Your task to perform on an android device: show emergency info Image 0: 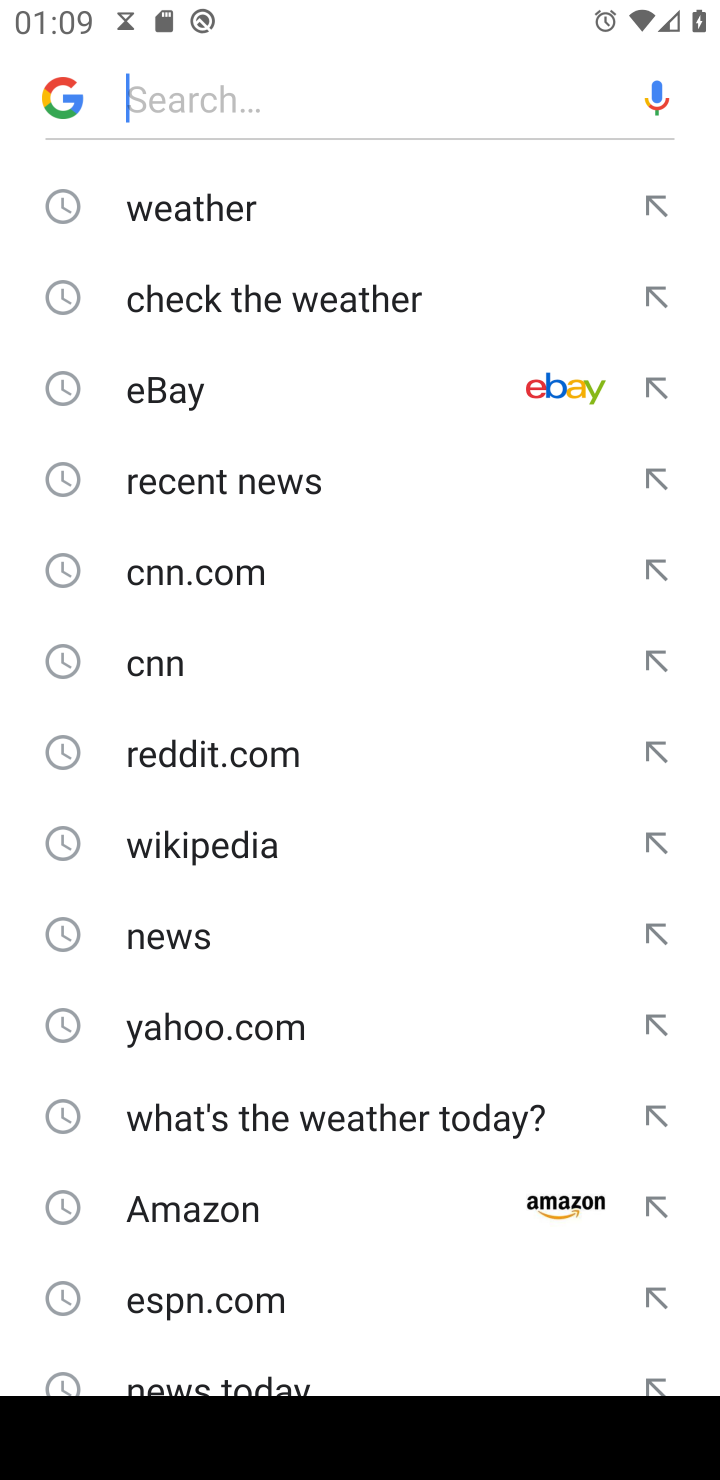
Step 0: press home button
Your task to perform on an android device: show emergency info Image 1: 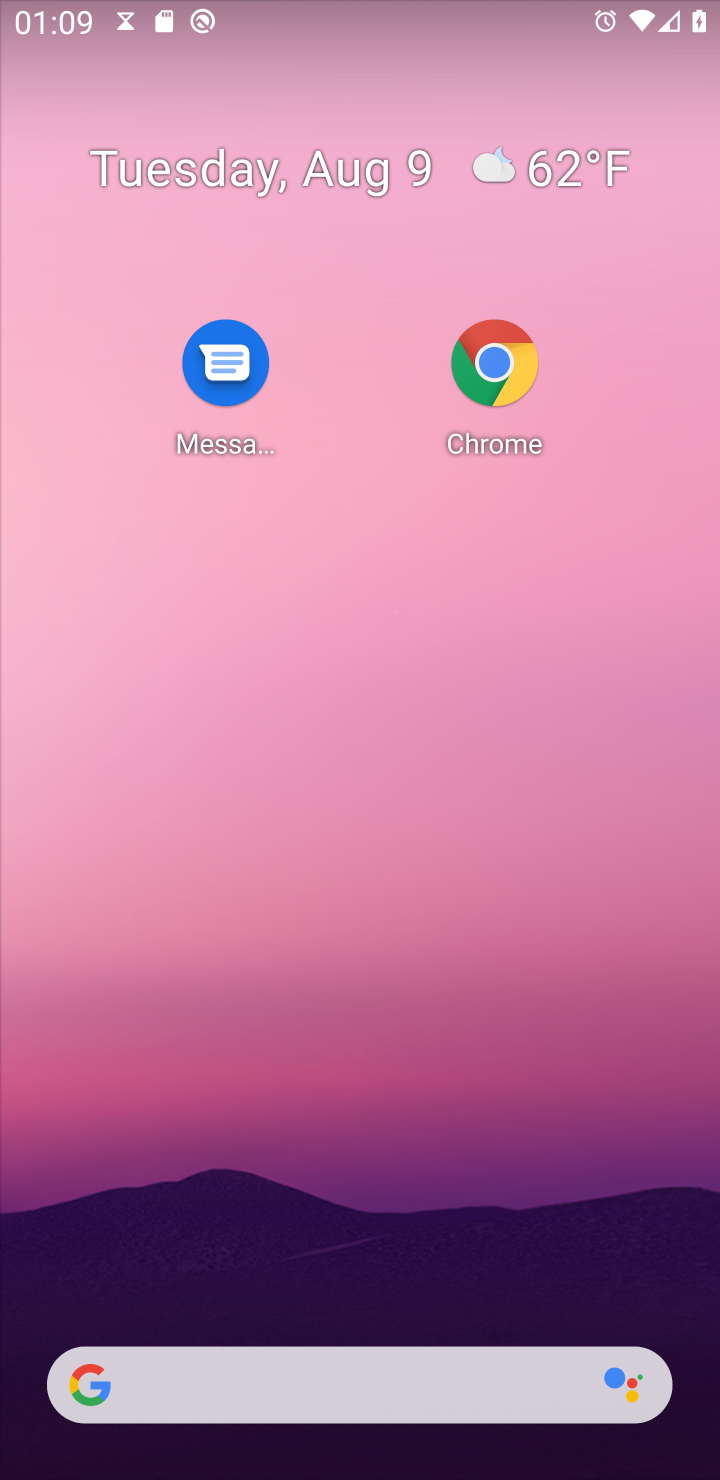
Step 1: drag from (368, 1299) to (351, 443)
Your task to perform on an android device: show emergency info Image 2: 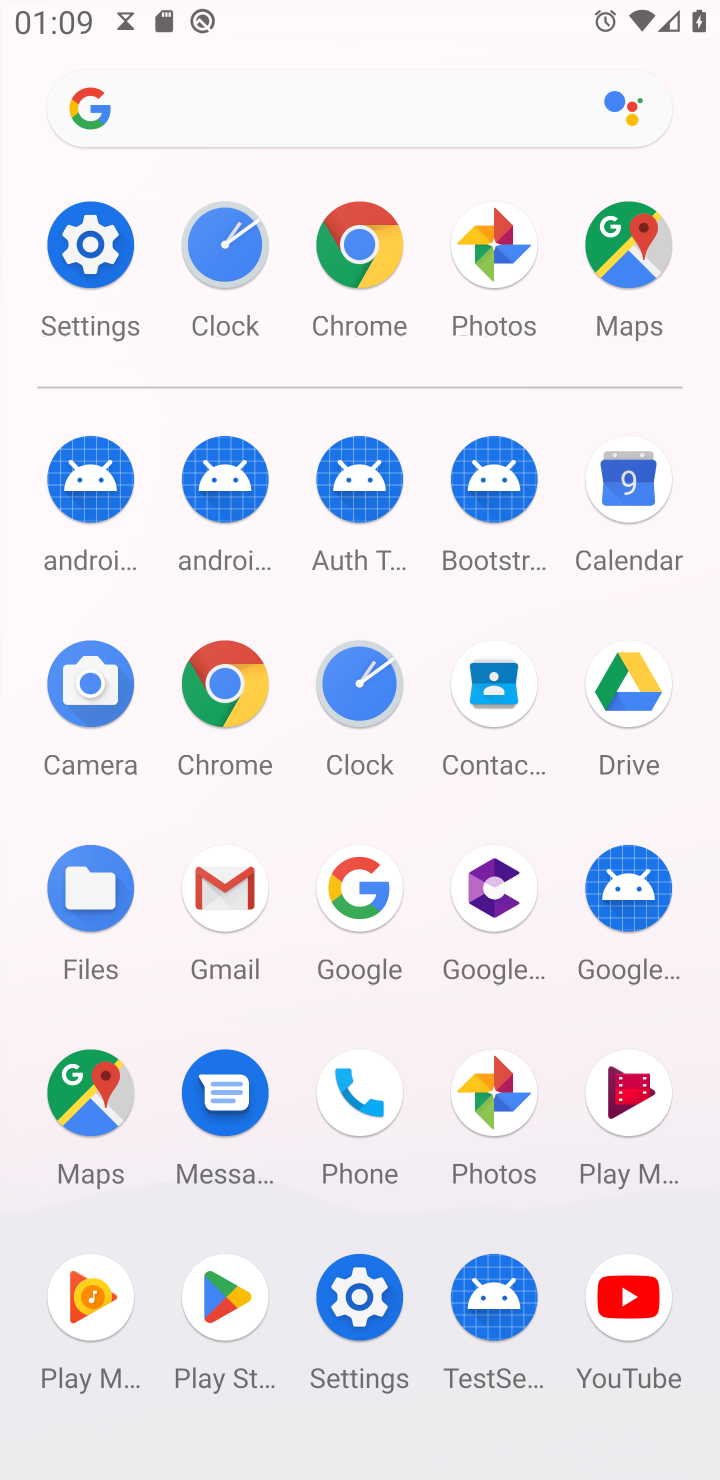
Step 2: click (90, 232)
Your task to perform on an android device: show emergency info Image 3: 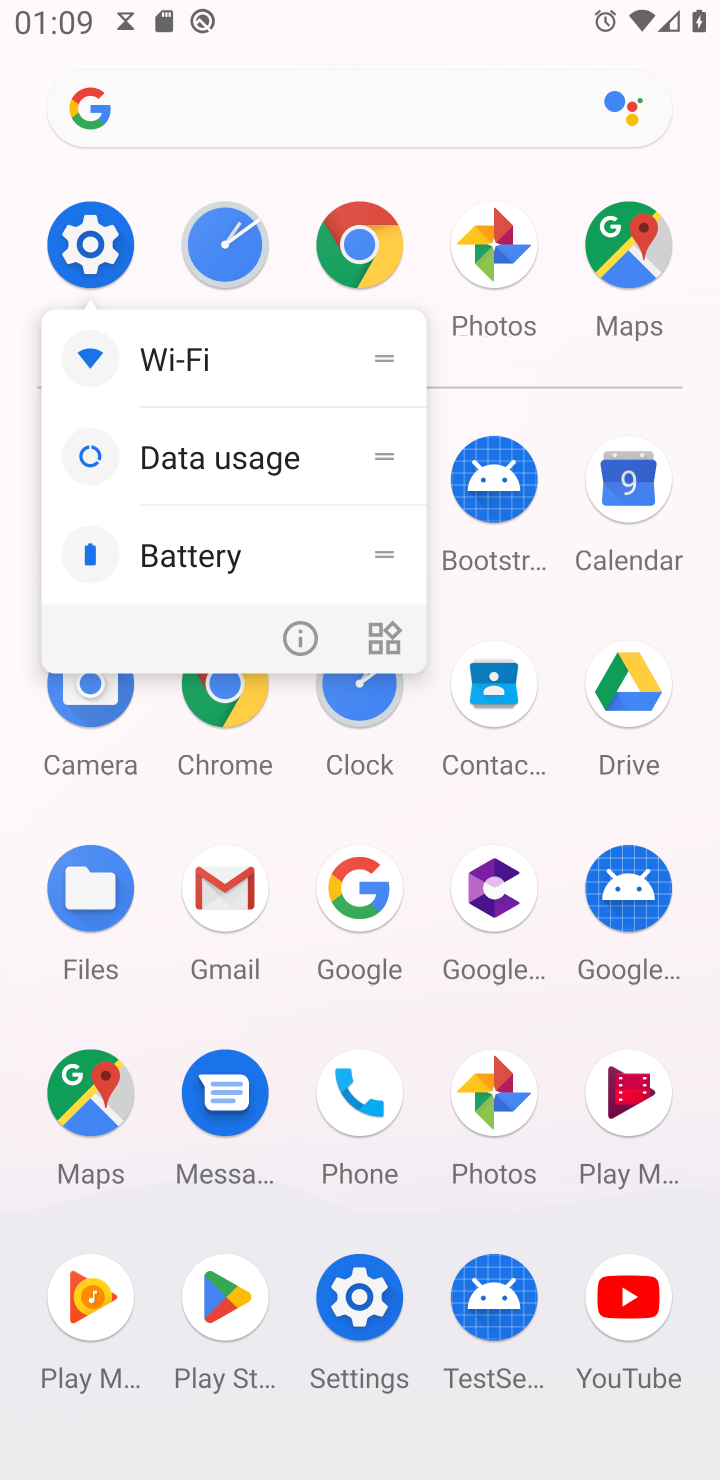
Step 3: click (111, 244)
Your task to perform on an android device: show emergency info Image 4: 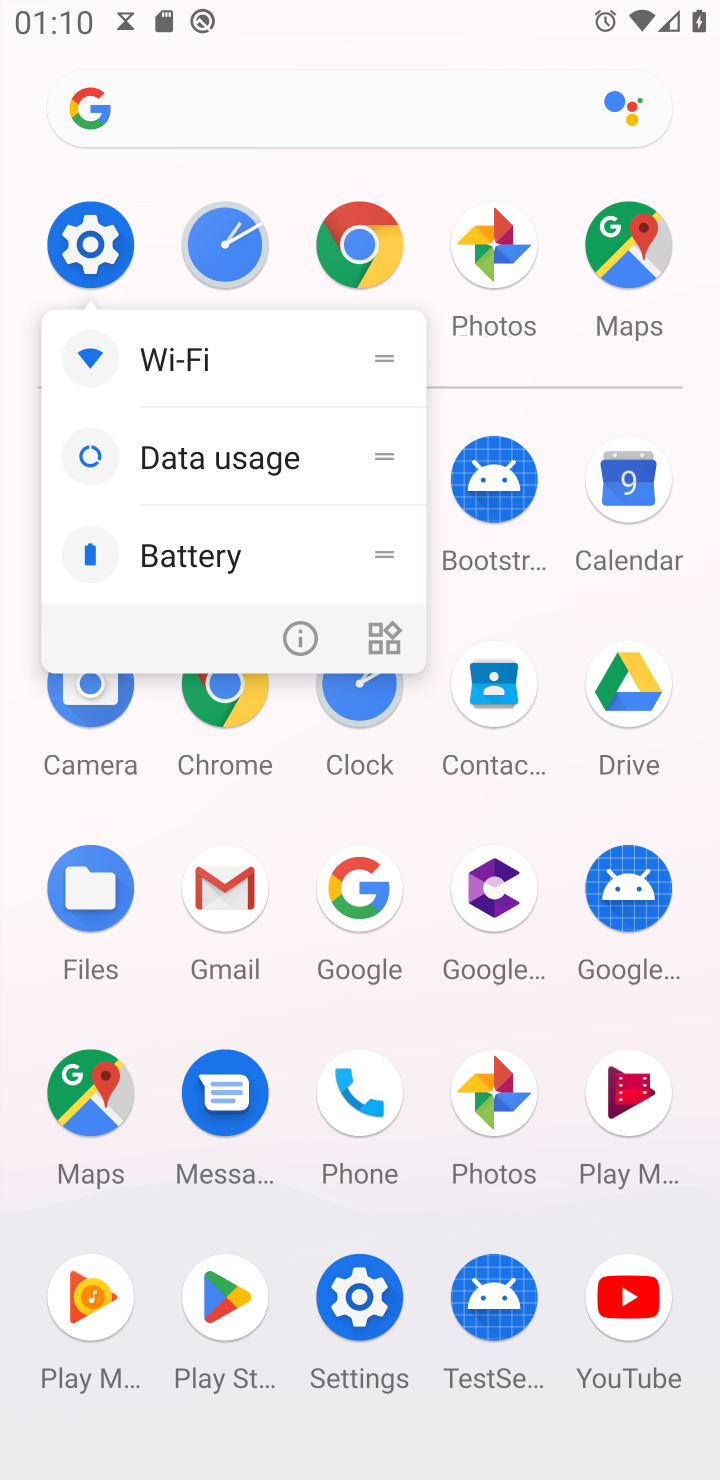
Step 4: click (111, 244)
Your task to perform on an android device: show emergency info Image 5: 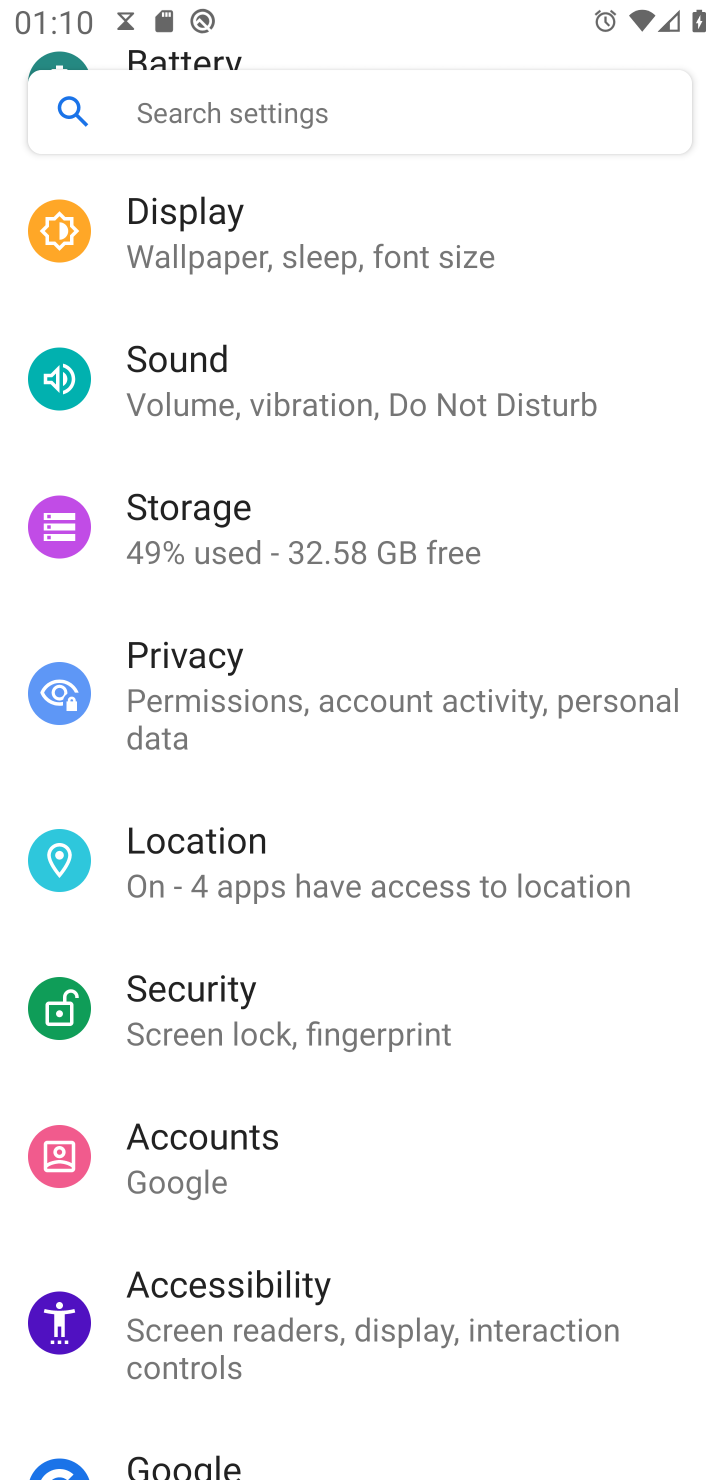
Step 5: drag from (351, 1242) to (344, 263)
Your task to perform on an android device: show emergency info Image 6: 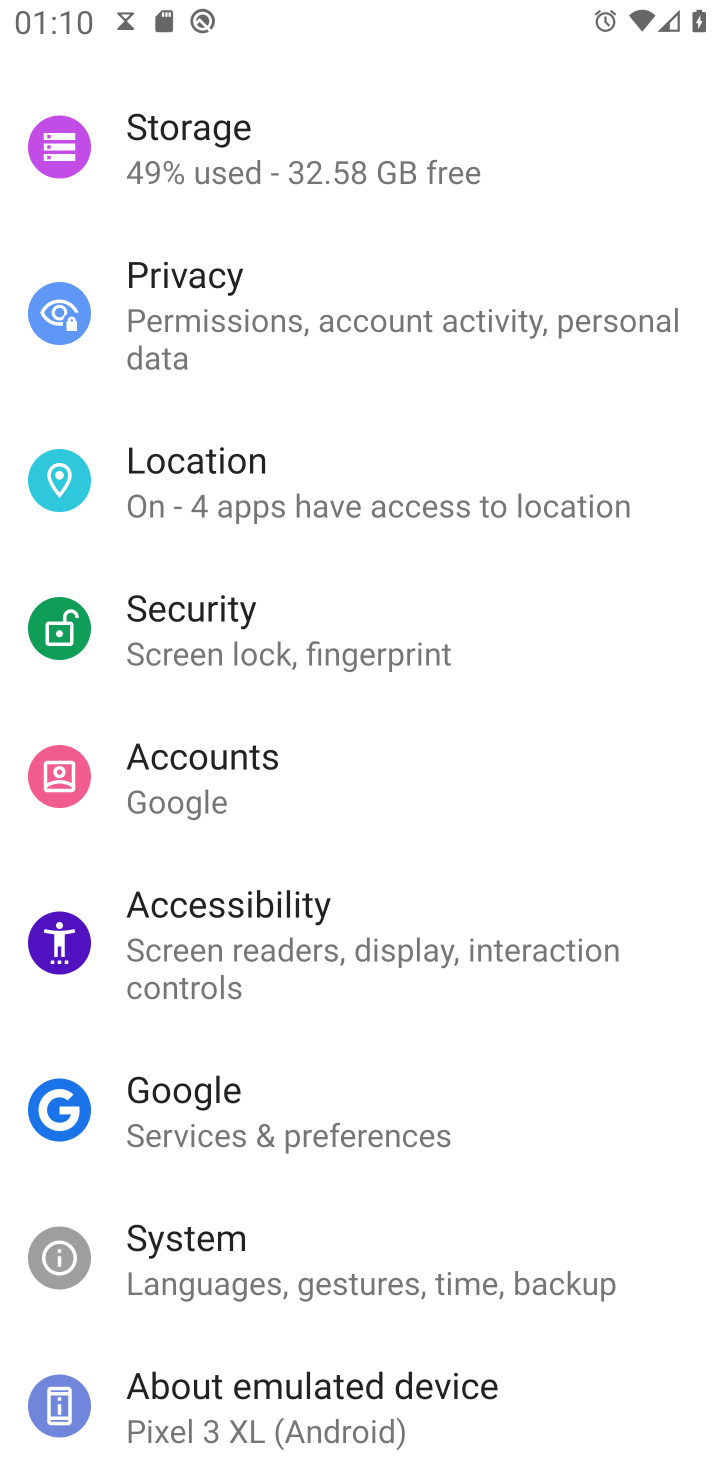
Step 6: click (278, 1372)
Your task to perform on an android device: show emergency info Image 7: 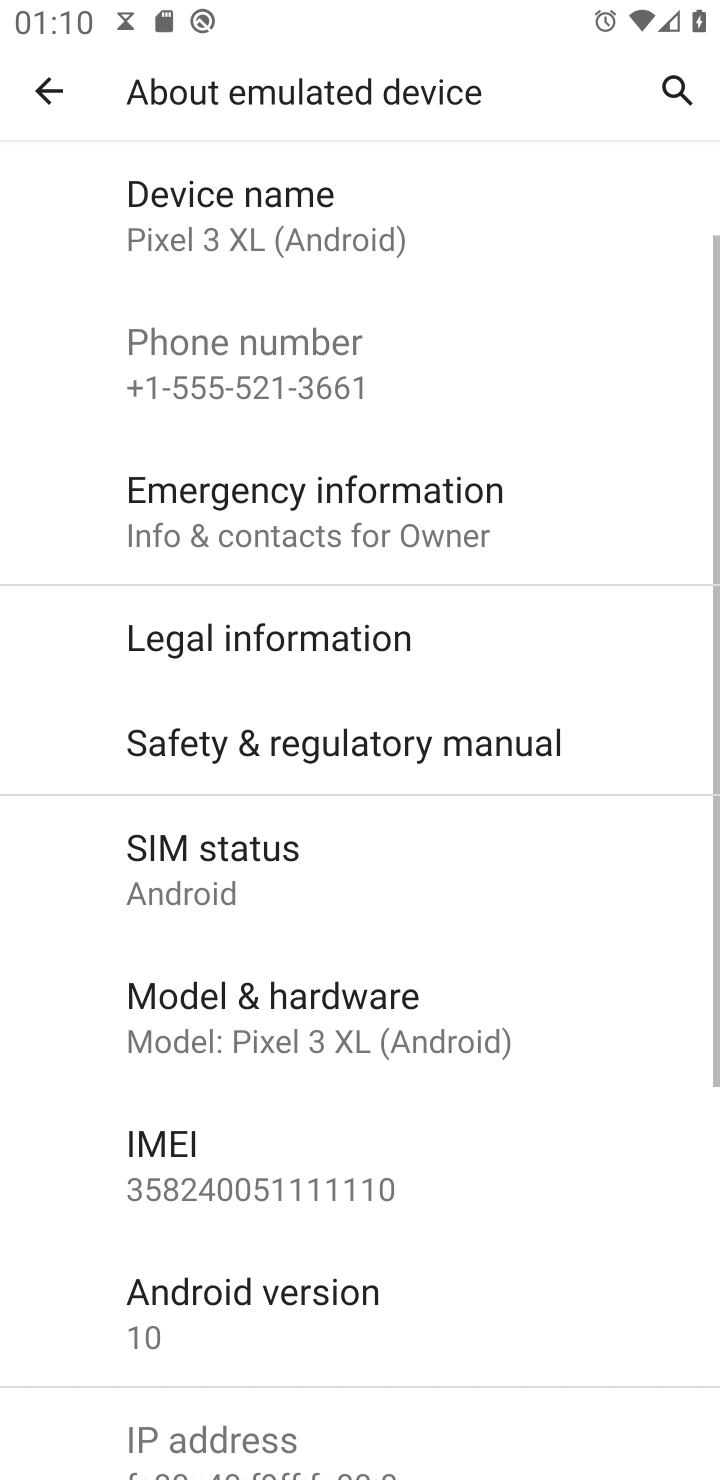
Step 7: click (303, 523)
Your task to perform on an android device: show emergency info Image 8: 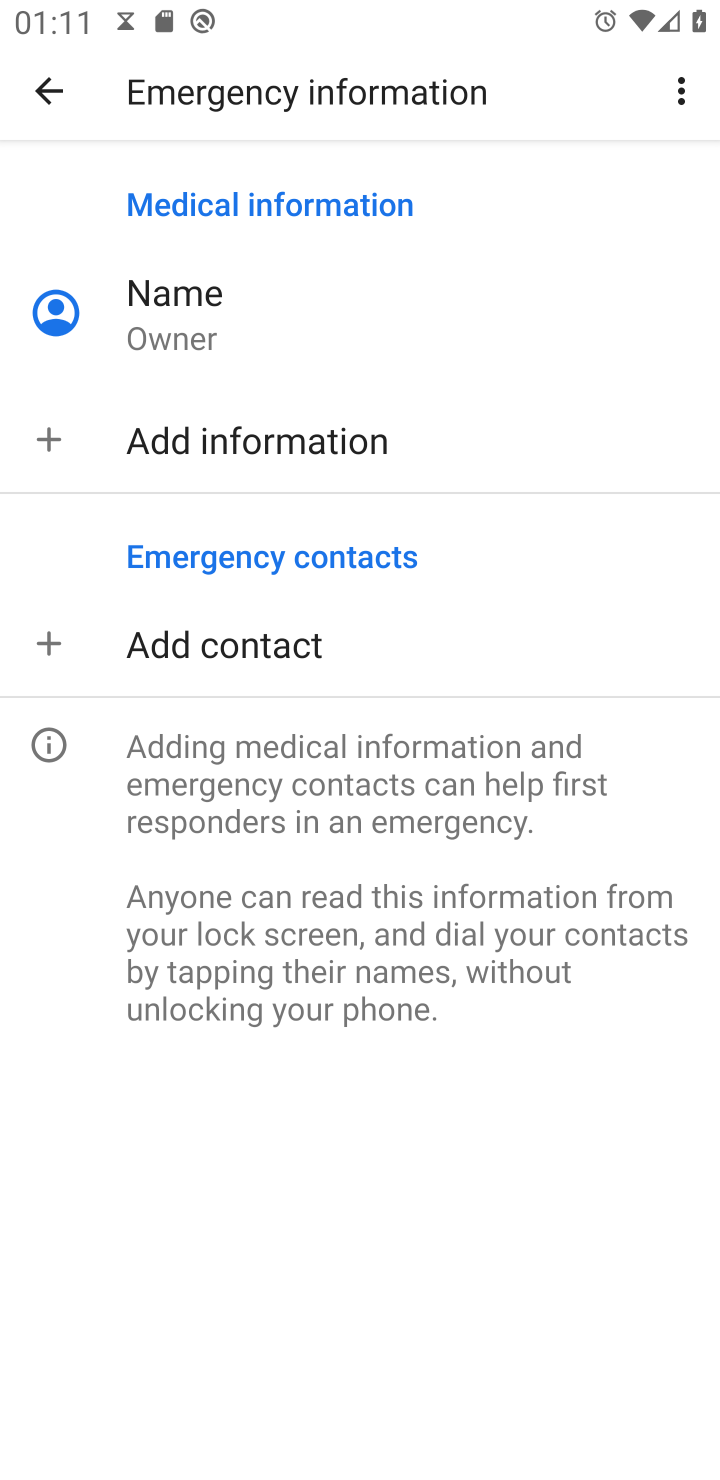
Step 8: task complete